Your task to perform on an android device: Open the Play Movies app and select the watchlist tab. Image 0: 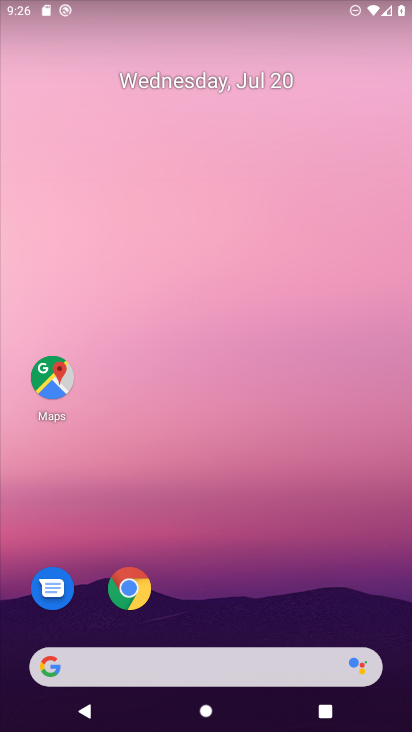
Step 0: drag from (195, 623) to (262, 170)
Your task to perform on an android device: Open the Play Movies app and select the watchlist tab. Image 1: 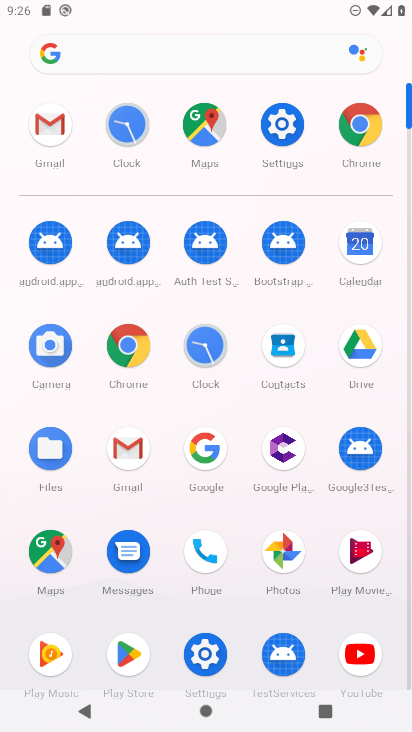
Step 1: click (368, 551)
Your task to perform on an android device: Open the Play Movies app and select the watchlist tab. Image 2: 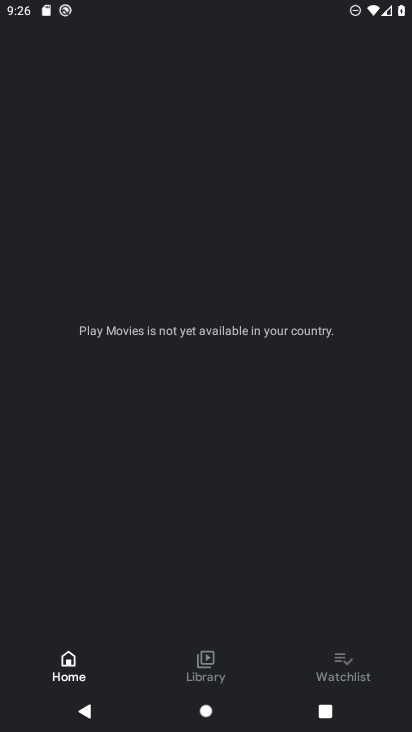
Step 2: click (328, 671)
Your task to perform on an android device: Open the Play Movies app and select the watchlist tab. Image 3: 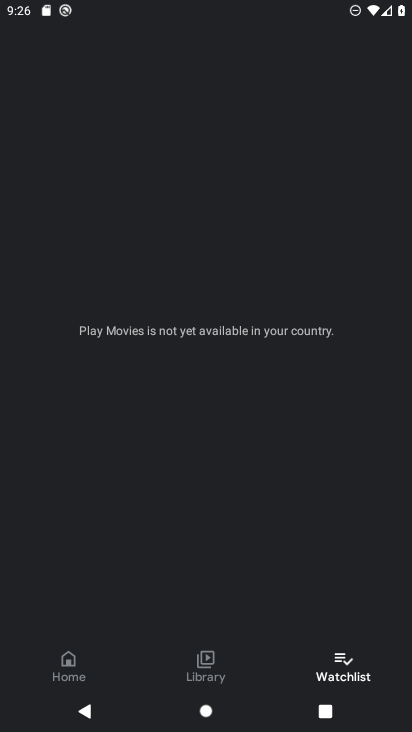
Step 3: task complete